Your task to perform on an android device: Open Google Chrome Image 0: 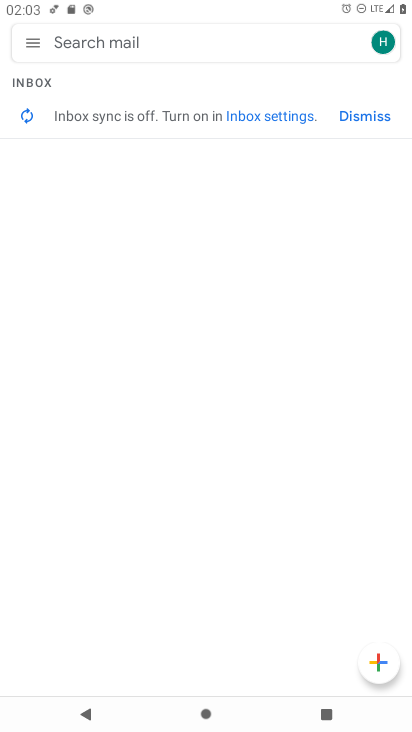
Step 0: press home button
Your task to perform on an android device: Open Google Chrome Image 1: 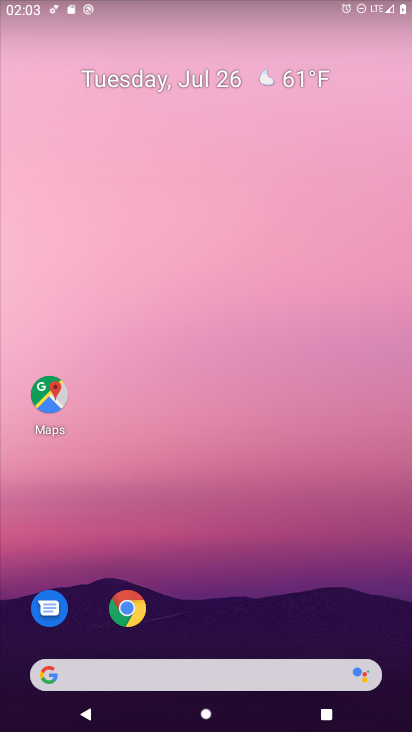
Step 1: click (128, 606)
Your task to perform on an android device: Open Google Chrome Image 2: 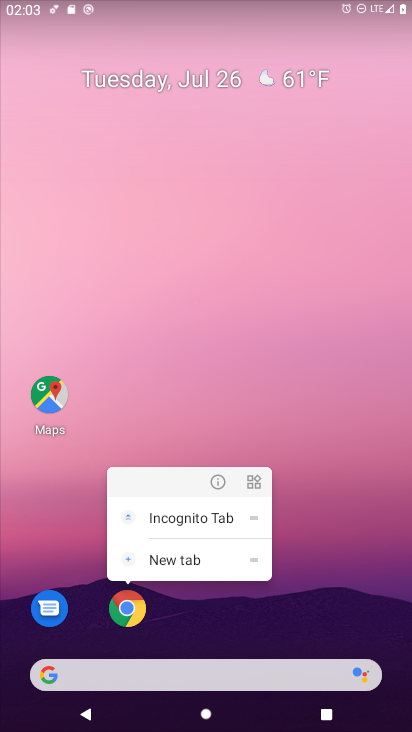
Step 2: click (129, 604)
Your task to perform on an android device: Open Google Chrome Image 3: 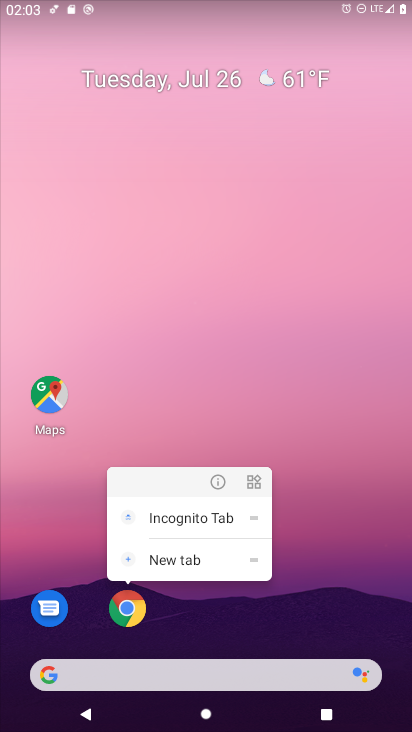
Step 3: click (129, 604)
Your task to perform on an android device: Open Google Chrome Image 4: 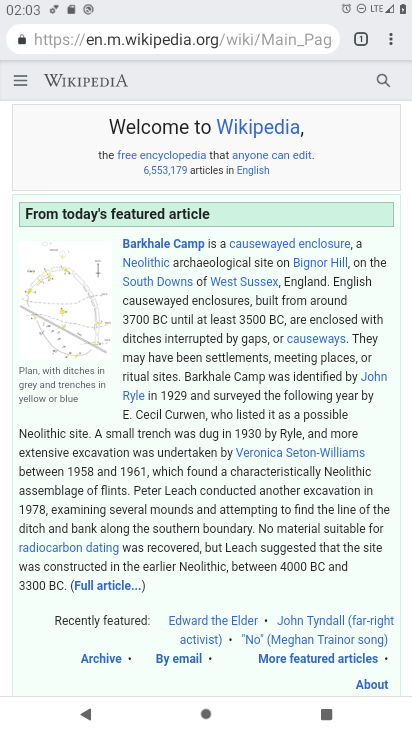
Step 4: click (362, 45)
Your task to perform on an android device: Open Google Chrome Image 5: 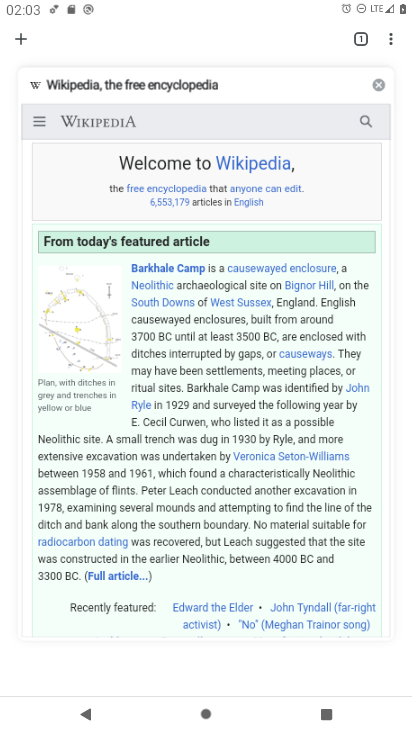
Step 5: click (382, 83)
Your task to perform on an android device: Open Google Chrome Image 6: 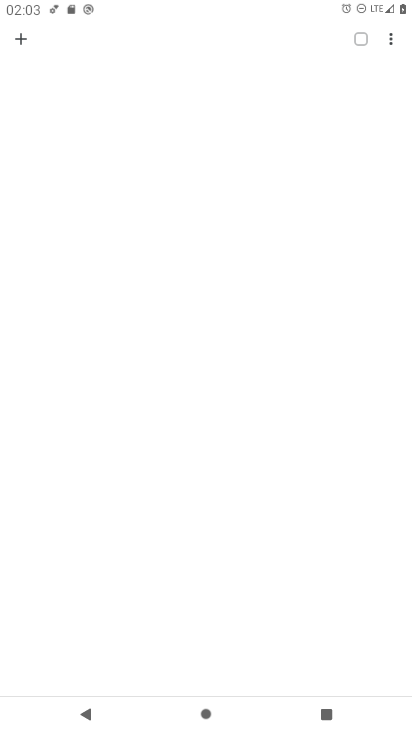
Step 6: click (20, 42)
Your task to perform on an android device: Open Google Chrome Image 7: 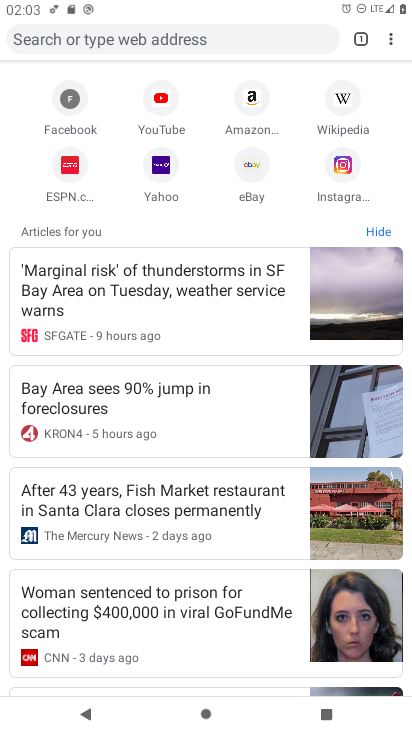
Step 7: task complete